Your task to perform on an android device: clear history in the chrome app Image 0: 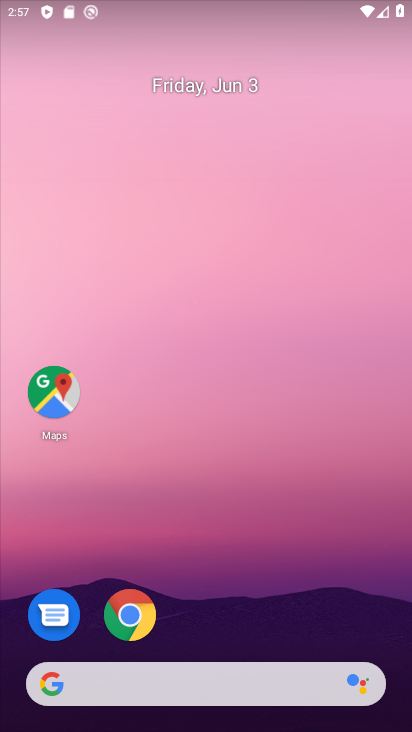
Step 0: click (124, 614)
Your task to perform on an android device: clear history in the chrome app Image 1: 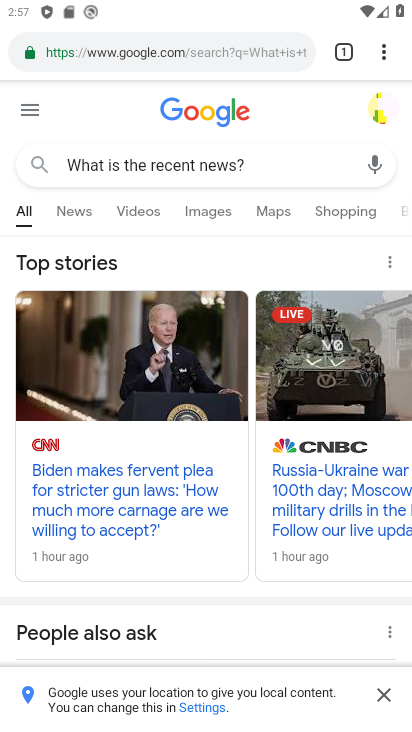
Step 1: click (387, 48)
Your task to perform on an android device: clear history in the chrome app Image 2: 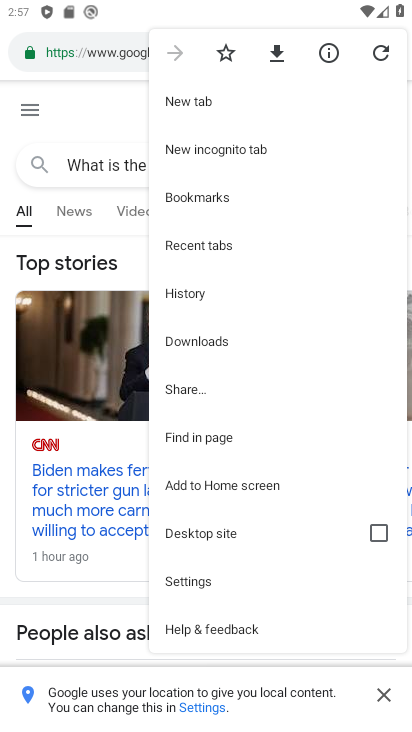
Step 2: click (223, 302)
Your task to perform on an android device: clear history in the chrome app Image 3: 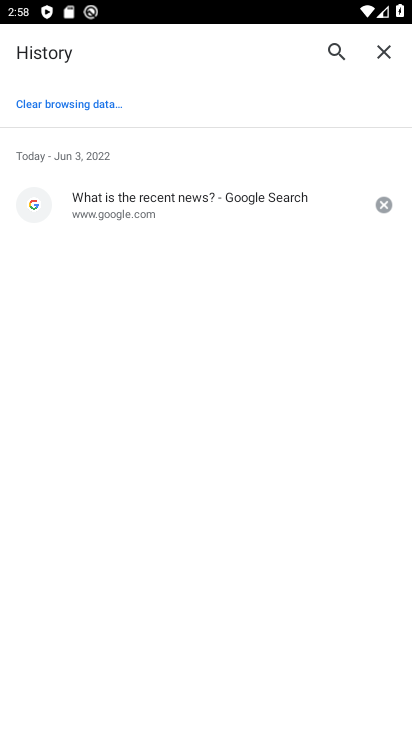
Step 3: click (119, 109)
Your task to perform on an android device: clear history in the chrome app Image 4: 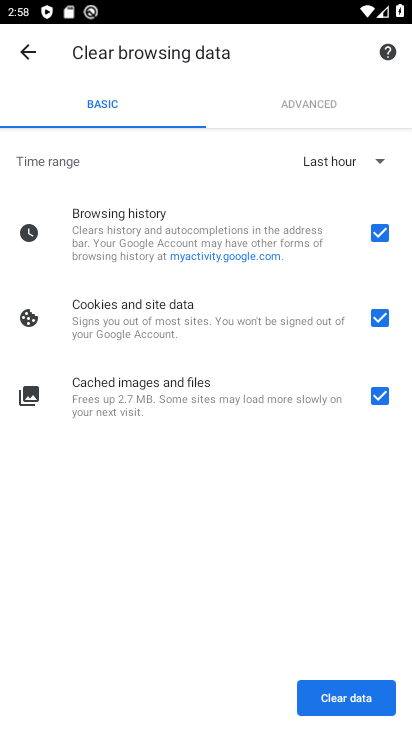
Step 4: click (382, 313)
Your task to perform on an android device: clear history in the chrome app Image 5: 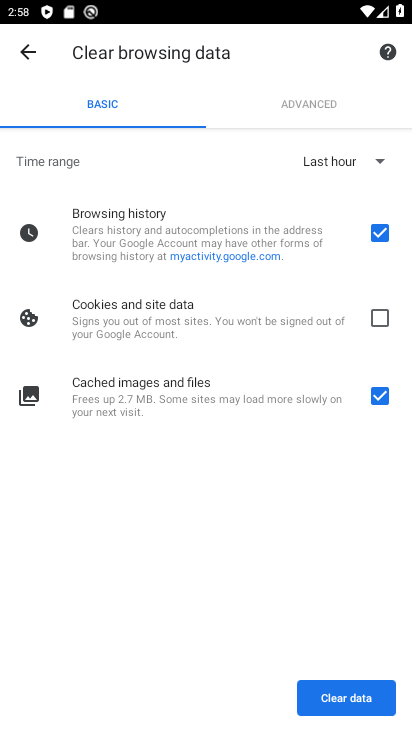
Step 5: click (378, 393)
Your task to perform on an android device: clear history in the chrome app Image 6: 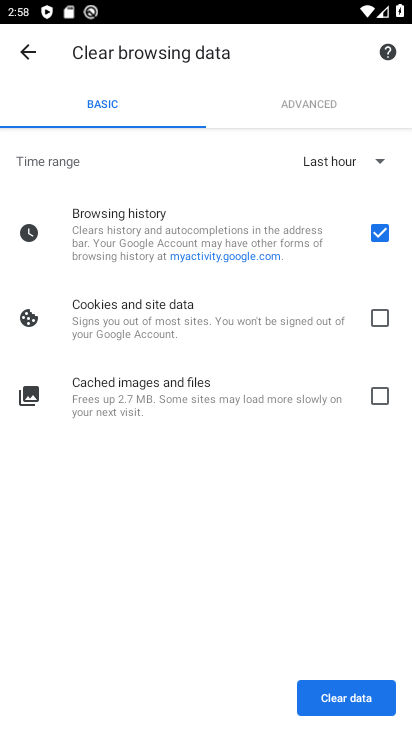
Step 6: click (329, 693)
Your task to perform on an android device: clear history in the chrome app Image 7: 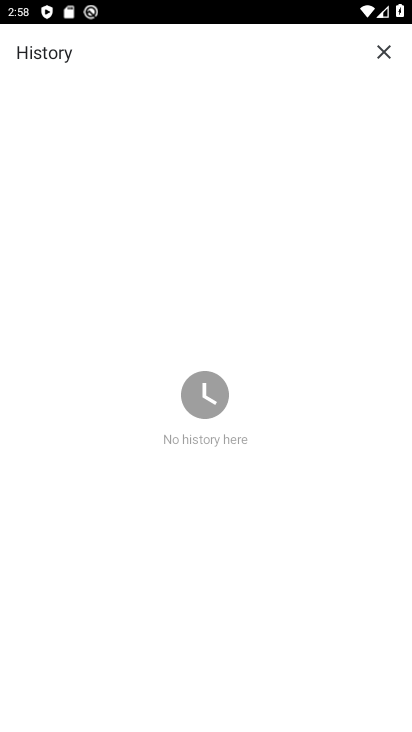
Step 7: task complete